Your task to perform on an android device: check android version Image 0: 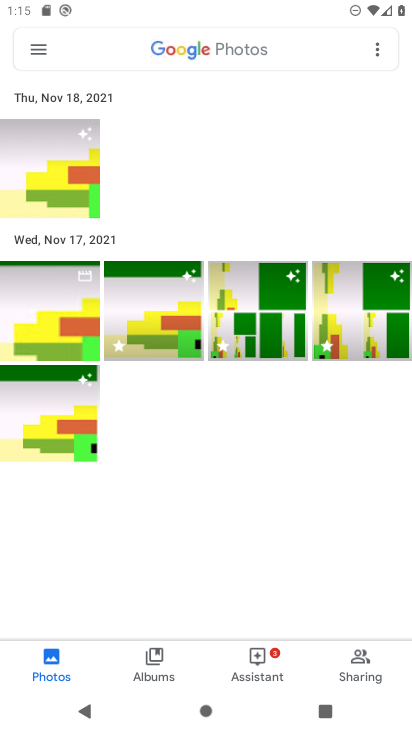
Step 0: press home button
Your task to perform on an android device: check android version Image 1: 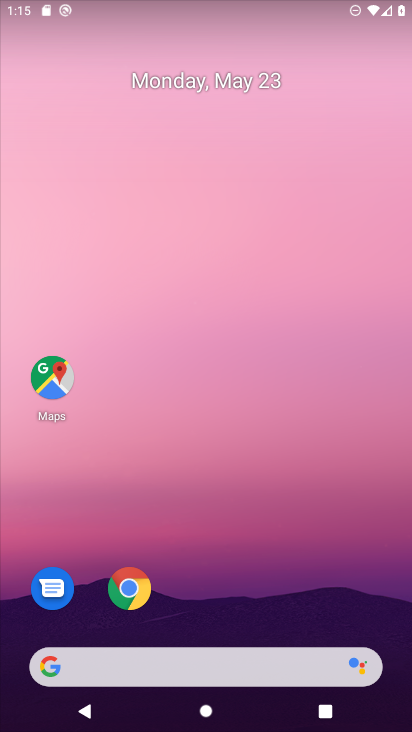
Step 1: drag from (190, 268) to (190, 133)
Your task to perform on an android device: check android version Image 2: 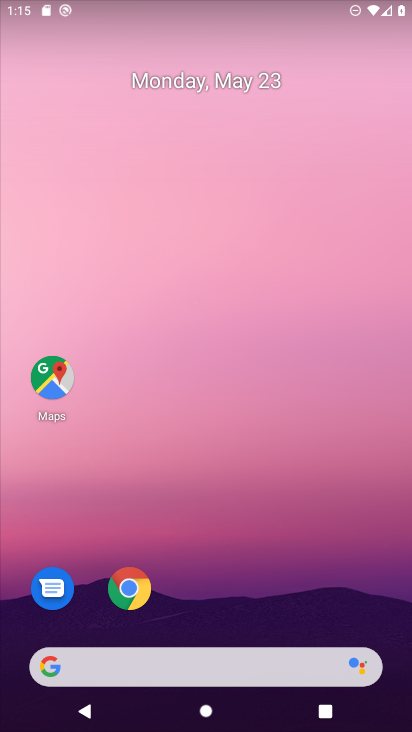
Step 2: drag from (281, 640) to (240, 44)
Your task to perform on an android device: check android version Image 3: 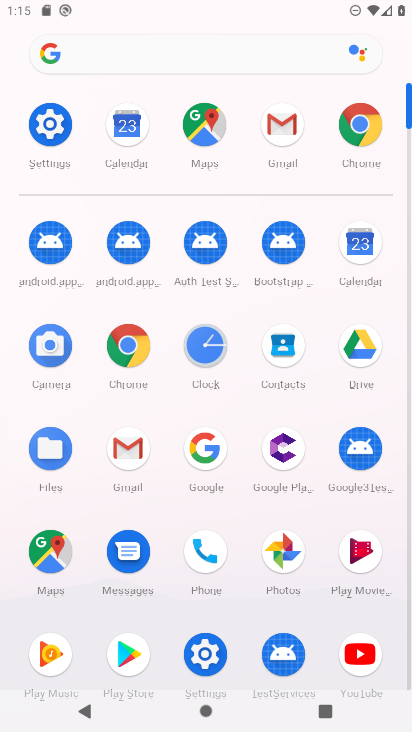
Step 3: click (33, 120)
Your task to perform on an android device: check android version Image 4: 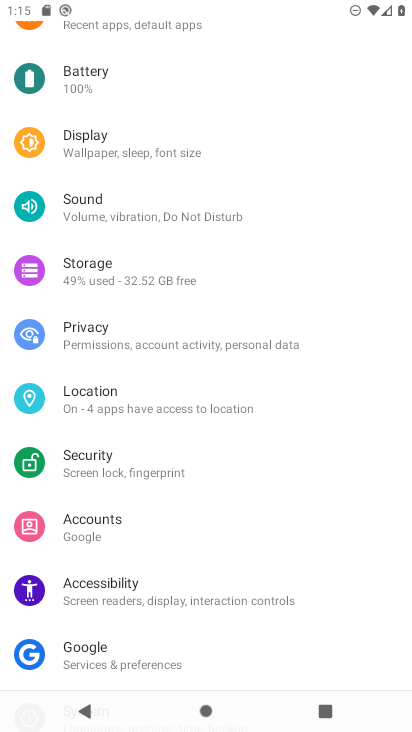
Step 4: click (156, 115)
Your task to perform on an android device: check android version Image 5: 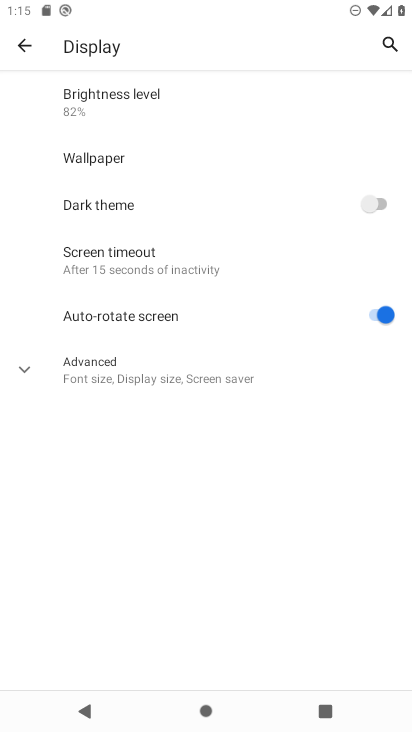
Step 5: click (21, 48)
Your task to perform on an android device: check android version Image 6: 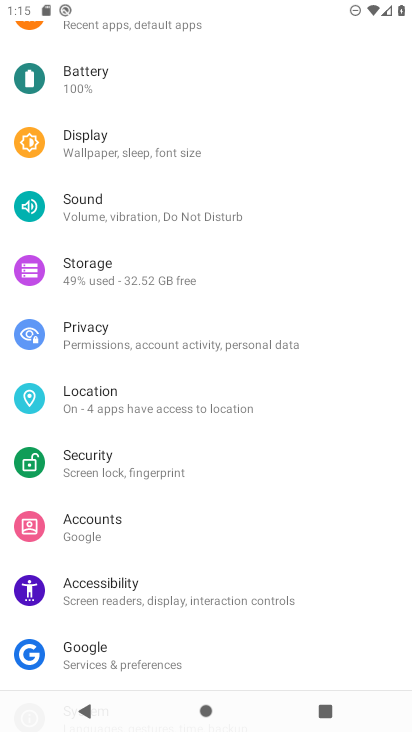
Step 6: drag from (119, 649) to (153, 146)
Your task to perform on an android device: check android version Image 7: 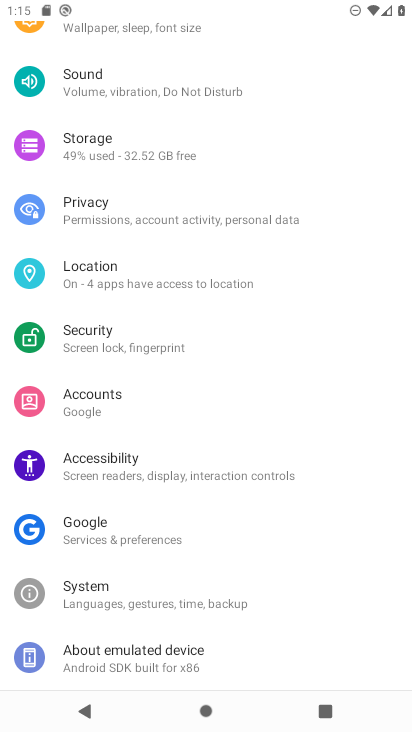
Step 7: click (124, 654)
Your task to perform on an android device: check android version Image 8: 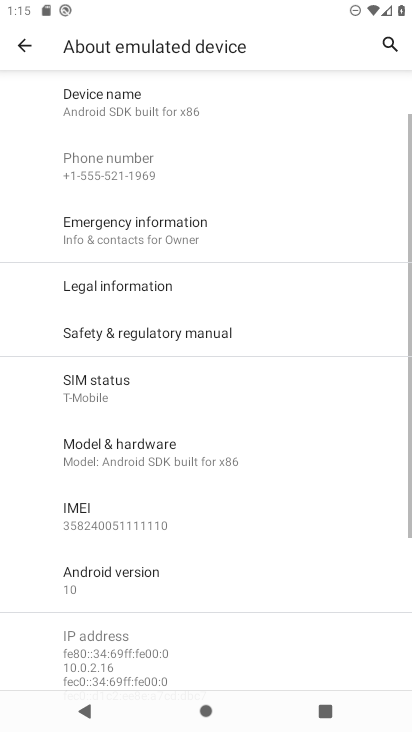
Step 8: task complete